Your task to perform on an android device: turn off translation in the chrome app Image 0: 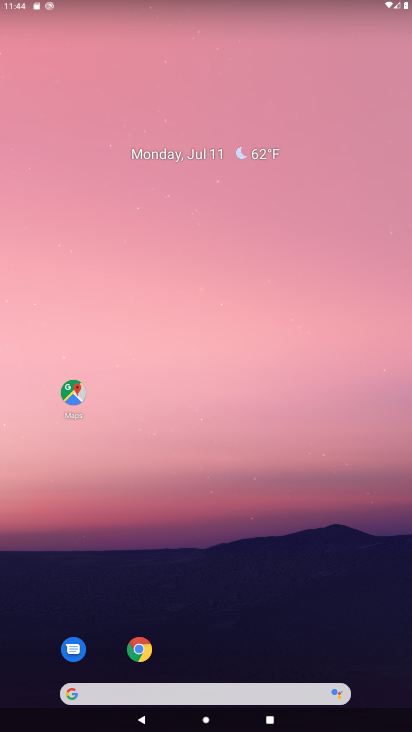
Step 0: click (138, 653)
Your task to perform on an android device: turn off translation in the chrome app Image 1: 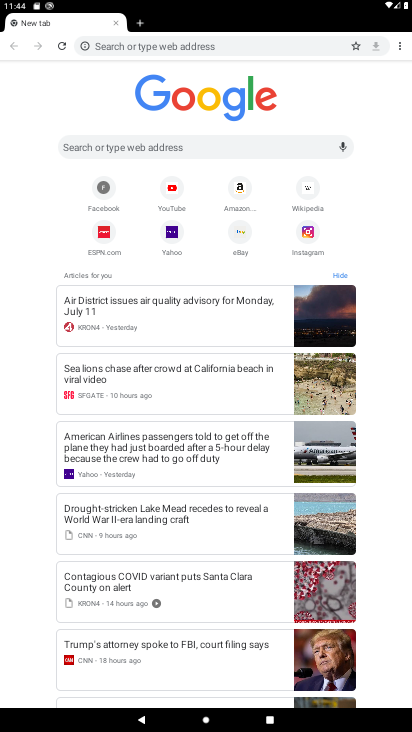
Step 1: click (395, 44)
Your task to perform on an android device: turn off translation in the chrome app Image 2: 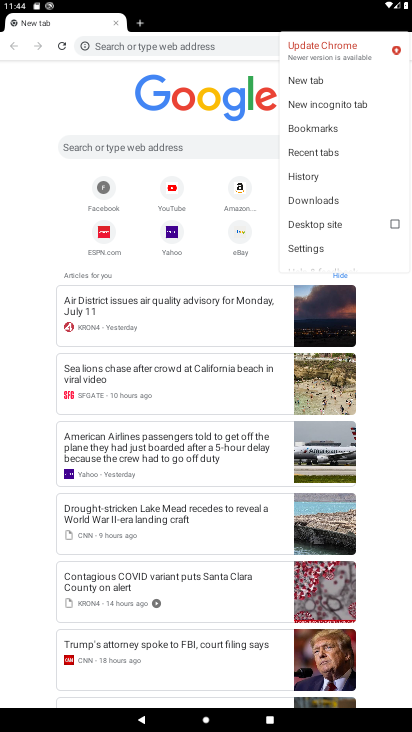
Step 2: click (311, 247)
Your task to perform on an android device: turn off translation in the chrome app Image 3: 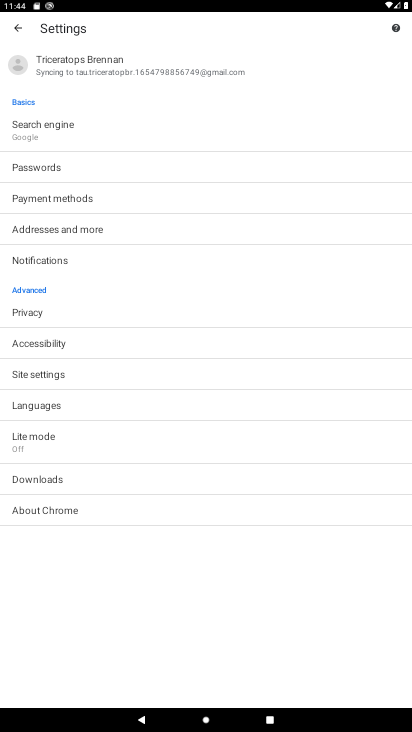
Step 3: click (52, 404)
Your task to perform on an android device: turn off translation in the chrome app Image 4: 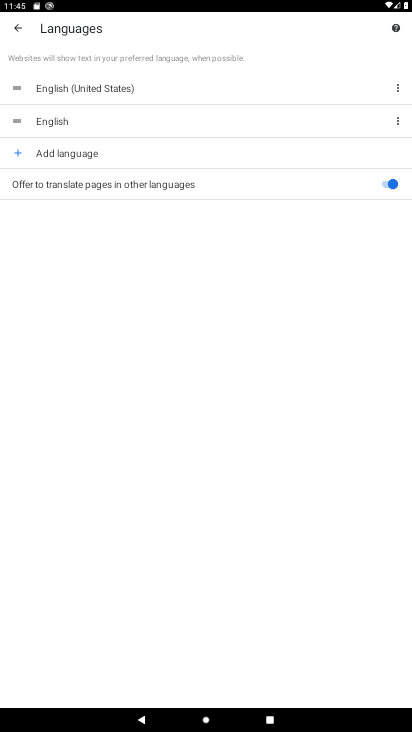
Step 4: click (391, 184)
Your task to perform on an android device: turn off translation in the chrome app Image 5: 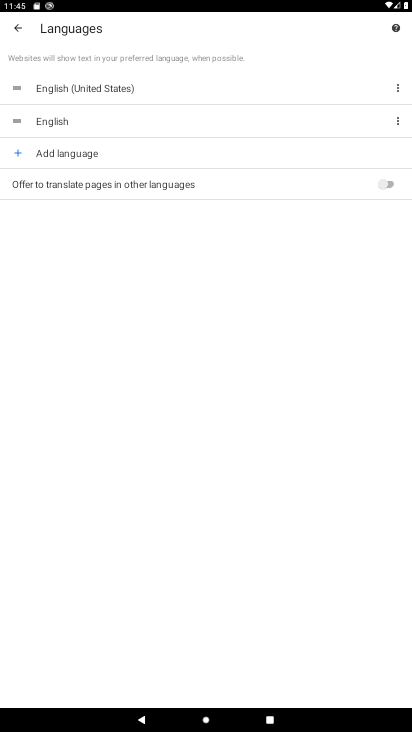
Step 5: task complete